Your task to perform on an android device: Search for Mexican restaurants on Maps Image 0: 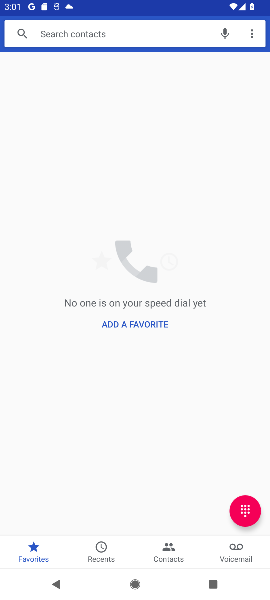
Step 0: click (171, 142)
Your task to perform on an android device: Search for Mexican restaurants on Maps Image 1: 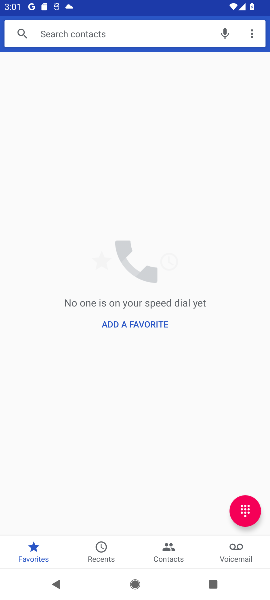
Step 1: drag from (169, 7) to (148, 39)
Your task to perform on an android device: Search for Mexican restaurants on Maps Image 2: 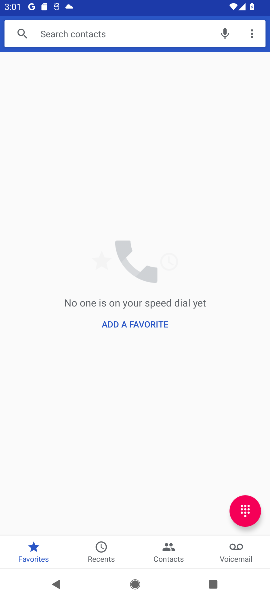
Step 2: click (112, 41)
Your task to perform on an android device: Search for Mexican restaurants on Maps Image 3: 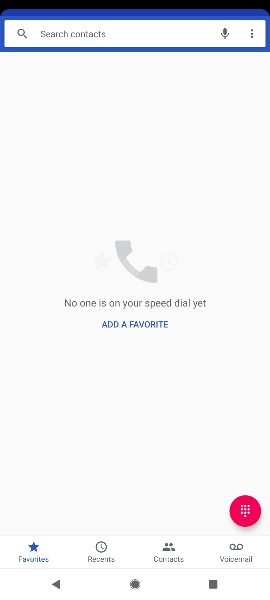
Step 3: drag from (140, 365) to (95, 59)
Your task to perform on an android device: Search for Mexican restaurants on Maps Image 4: 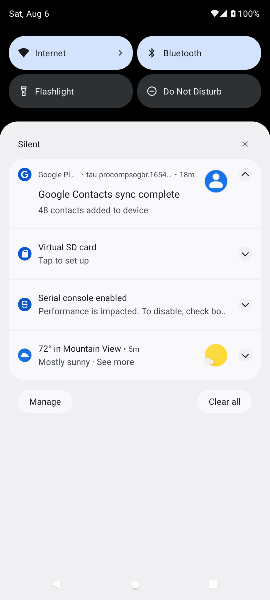
Step 4: drag from (234, 331) to (204, 196)
Your task to perform on an android device: Search for Mexican restaurants on Maps Image 5: 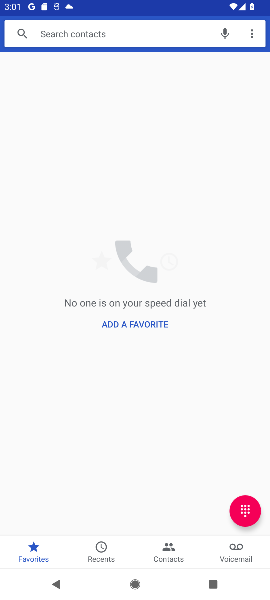
Step 5: press back button
Your task to perform on an android device: Search for Mexican restaurants on Maps Image 6: 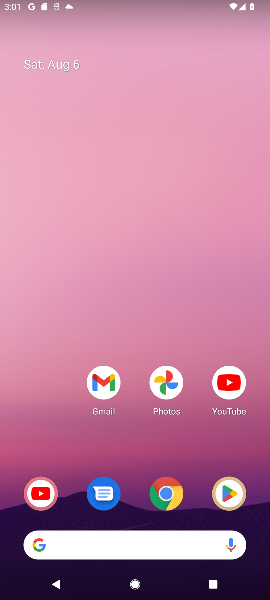
Step 6: drag from (193, 439) to (148, 121)
Your task to perform on an android device: Search for Mexican restaurants on Maps Image 7: 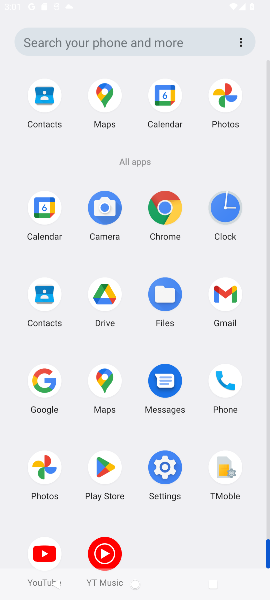
Step 7: drag from (160, 406) to (151, 85)
Your task to perform on an android device: Search for Mexican restaurants on Maps Image 8: 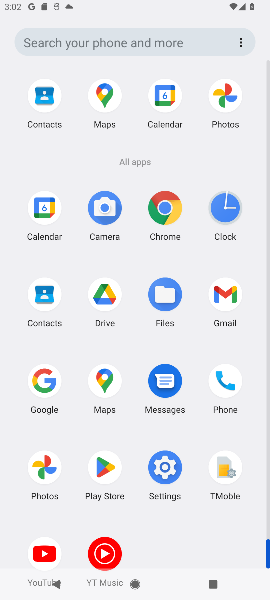
Step 8: click (101, 383)
Your task to perform on an android device: Search for Mexican restaurants on Maps Image 9: 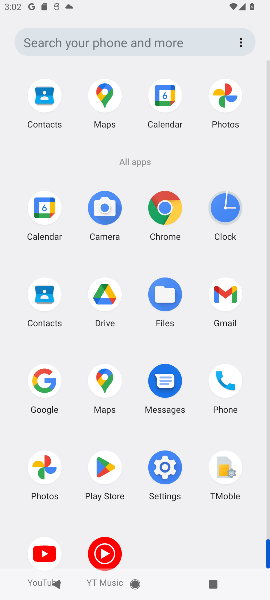
Step 9: click (101, 383)
Your task to perform on an android device: Search for Mexican restaurants on Maps Image 10: 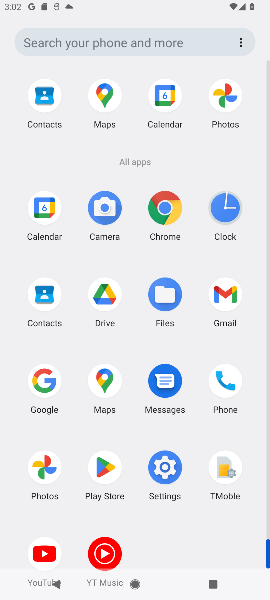
Step 10: click (101, 383)
Your task to perform on an android device: Search for Mexican restaurants on Maps Image 11: 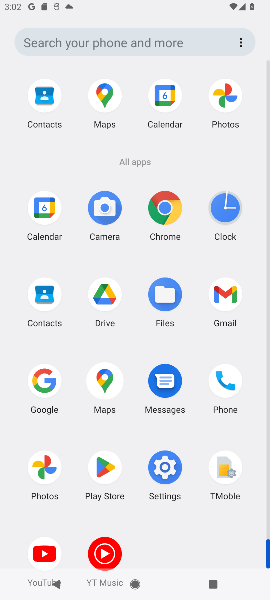
Step 11: click (101, 383)
Your task to perform on an android device: Search for Mexican restaurants on Maps Image 12: 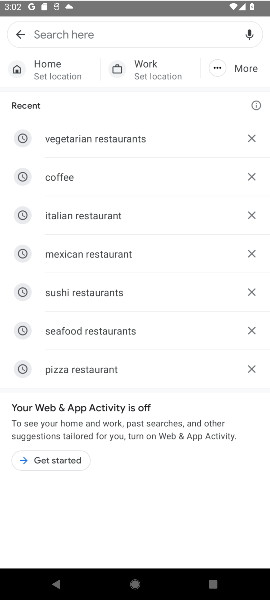
Step 12: click (101, 383)
Your task to perform on an android device: Search for Mexican restaurants on Maps Image 13: 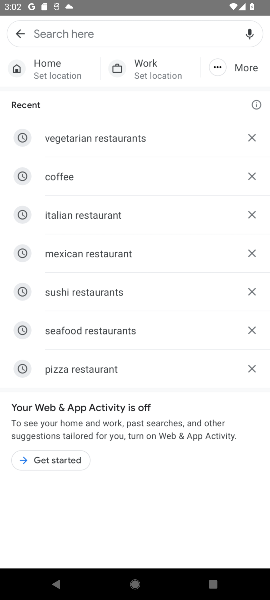
Step 13: click (105, 385)
Your task to perform on an android device: Search for Mexican restaurants on Maps Image 14: 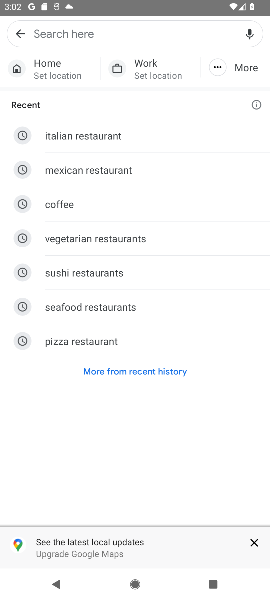
Step 14: click (85, 165)
Your task to perform on an android device: Search for Mexican restaurants on Maps Image 15: 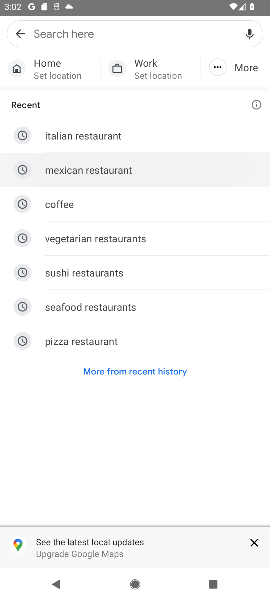
Step 15: click (92, 167)
Your task to perform on an android device: Search for Mexican restaurants on Maps Image 16: 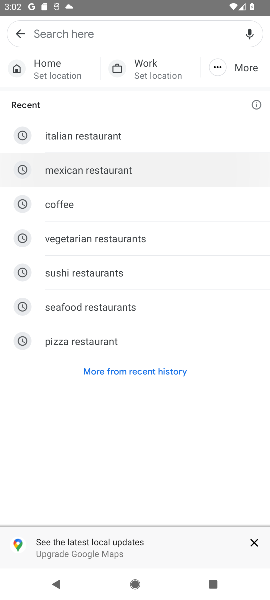
Step 16: click (94, 169)
Your task to perform on an android device: Search for Mexican restaurants on Maps Image 17: 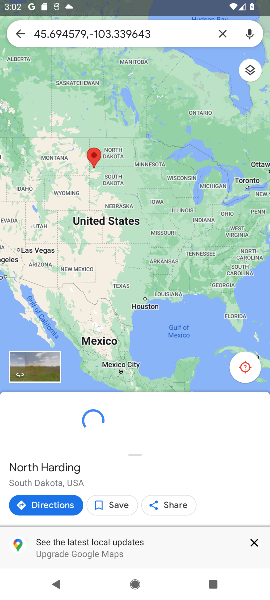
Step 17: task complete